Your task to perform on an android device: Open maps Image 0: 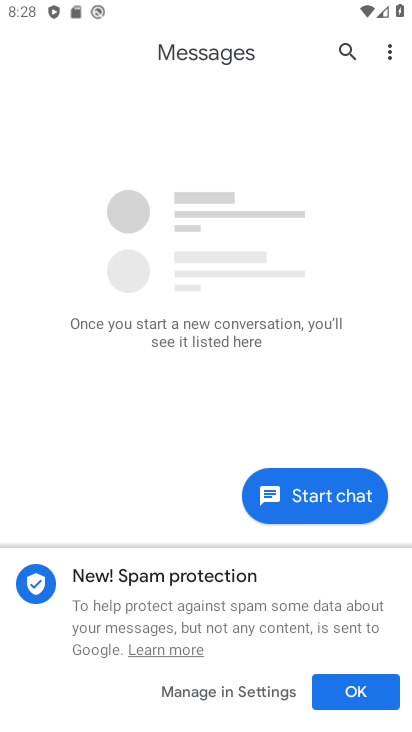
Step 0: press home button
Your task to perform on an android device: Open maps Image 1: 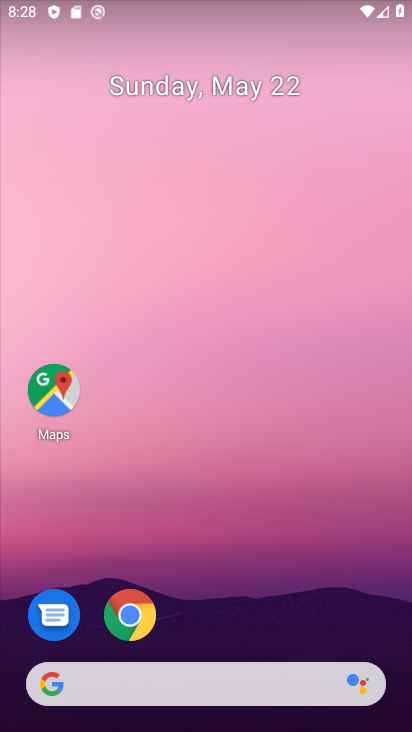
Step 1: click (44, 379)
Your task to perform on an android device: Open maps Image 2: 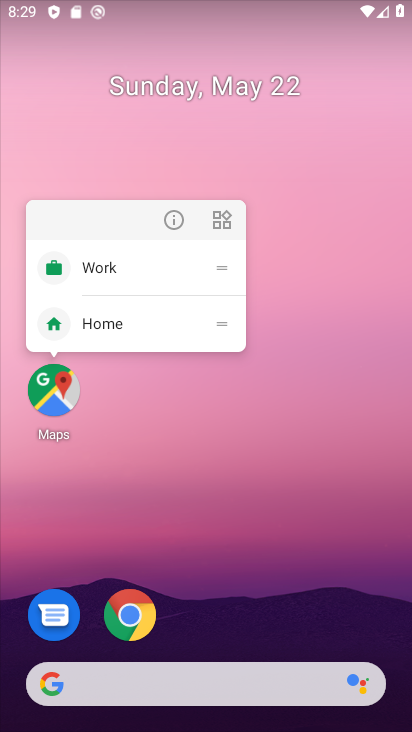
Step 2: click (53, 380)
Your task to perform on an android device: Open maps Image 3: 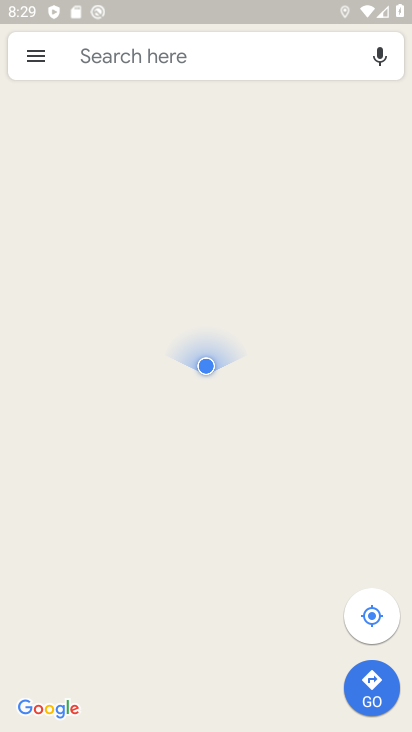
Step 3: task complete